Your task to perform on an android device: Go to privacy settings Image 0: 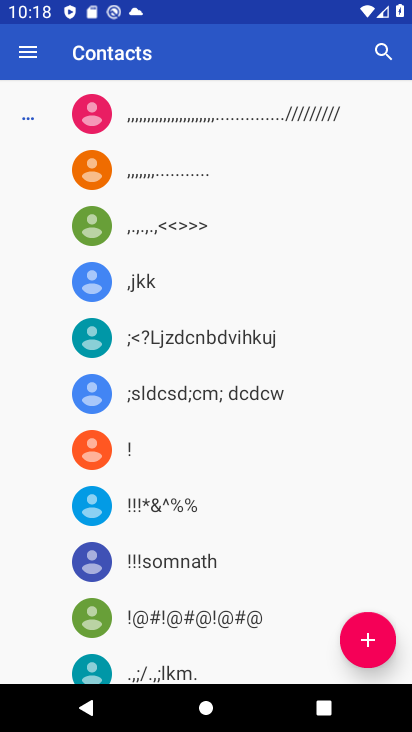
Step 0: press home button
Your task to perform on an android device: Go to privacy settings Image 1: 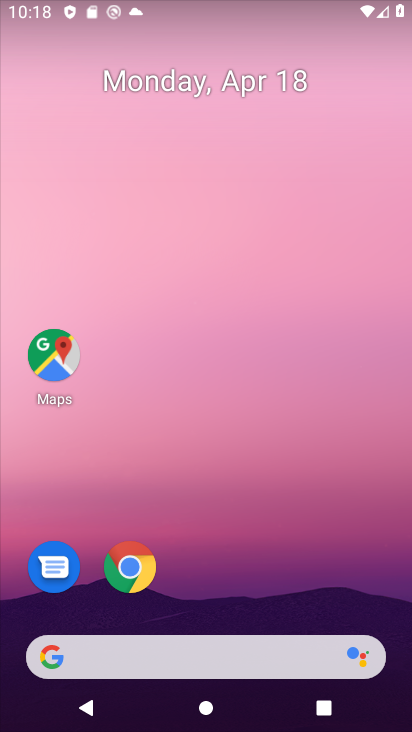
Step 1: click (134, 574)
Your task to perform on an android device: Go to privacy settings Image 2: 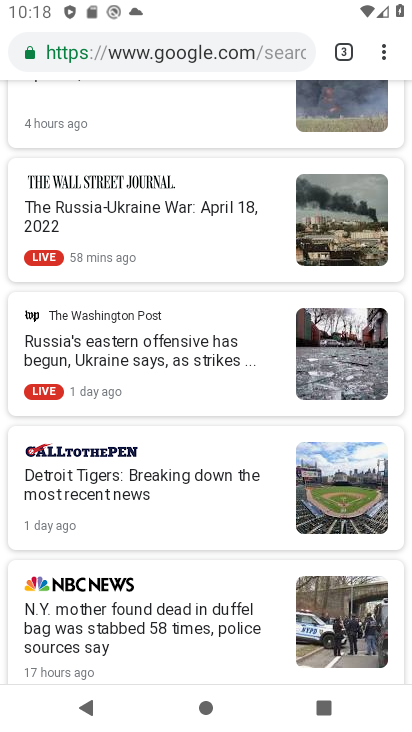
Step 2: click (386, 51)
Your task to perform on an android device: Go to privacy settings Image 3: 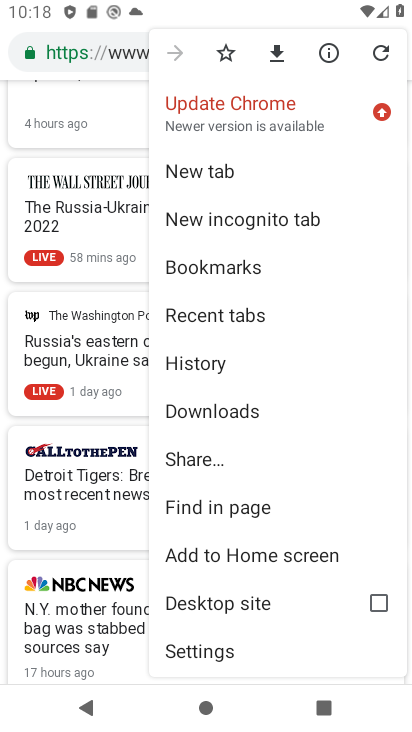
Step 3: click (216, 655)
Your task to perform on an android device: Go to privacy settings Image 4: 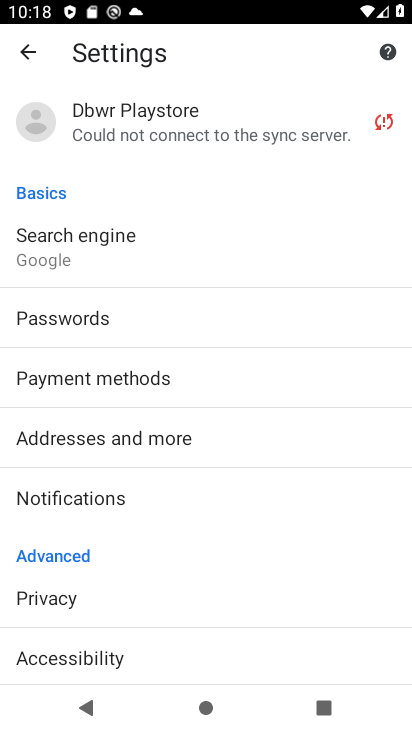
Step 4: click (51, 597)
Your task to perform on an android device: Go to privacy settings Image 5: 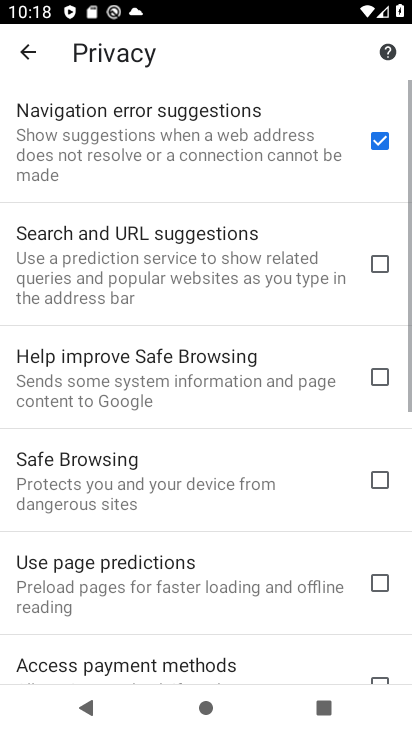
Step 5: task complete